Your task to perform on an android device: What's on my calendar today? Image 0: 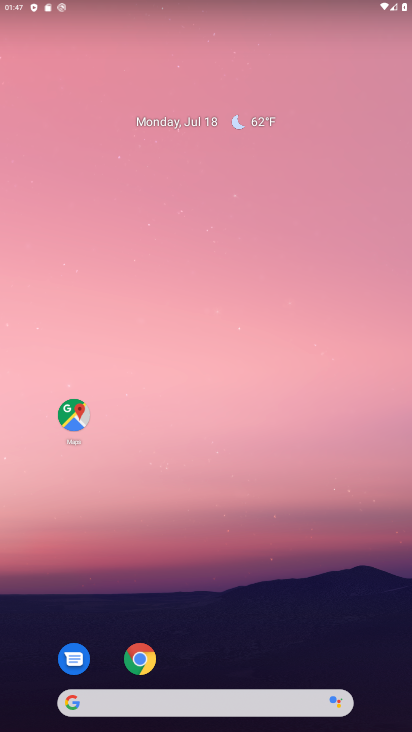
Step 0: drag from (307, 627) to (259, 159)
Your task to perform on an android device: What's on my calendar today? Image 1: 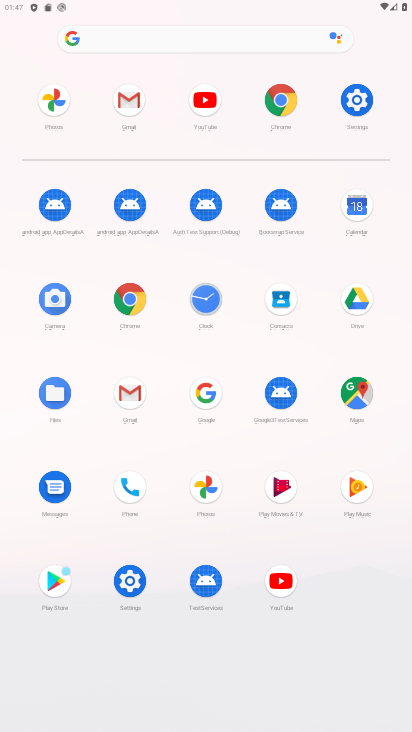
Step 1: click (360, 214)
Your task to perform on an android device: What's on my calendar today? Image 2: 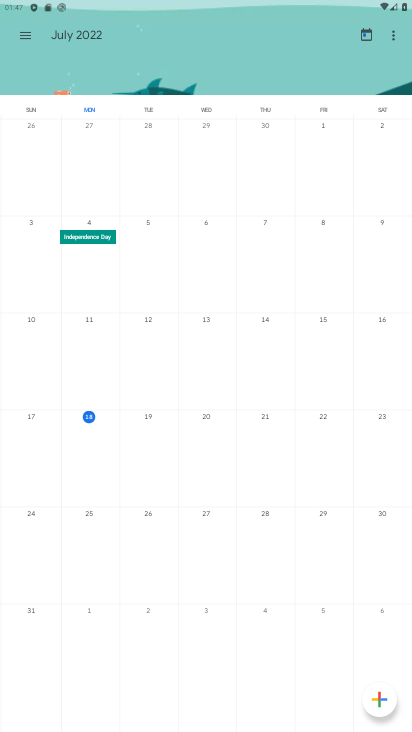
Step 2: click (87, 422)
Your task to perform on an android device: What's on my calendar today? Image 3: 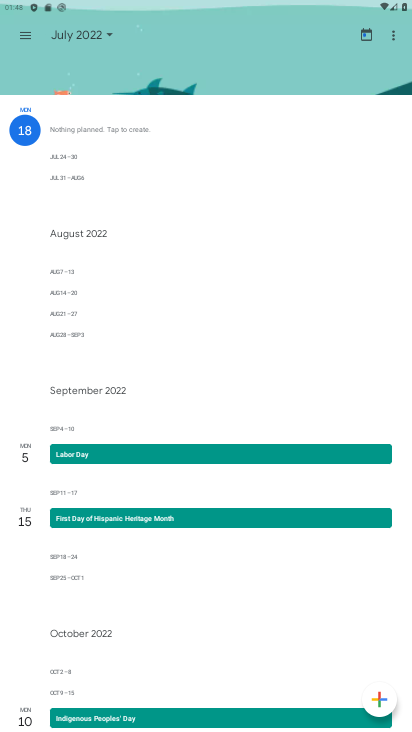
Step 3: task complete